Your task to perform on an android device: Show me the alarms in the clock app Image 0: 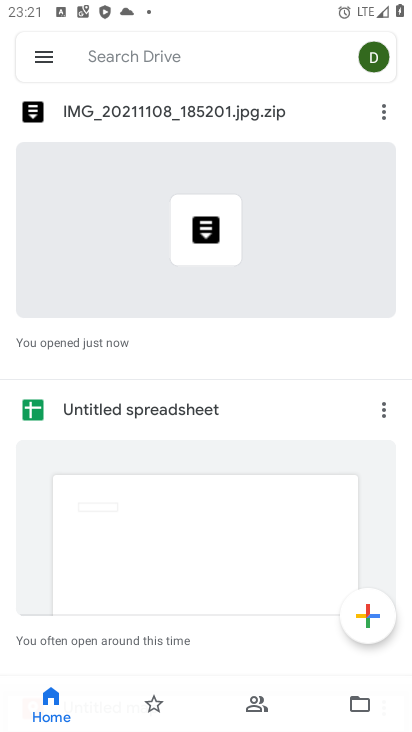
Step 0: press home button
Your task to perform on an android device: Show me the alarms in the clock app Image 1: 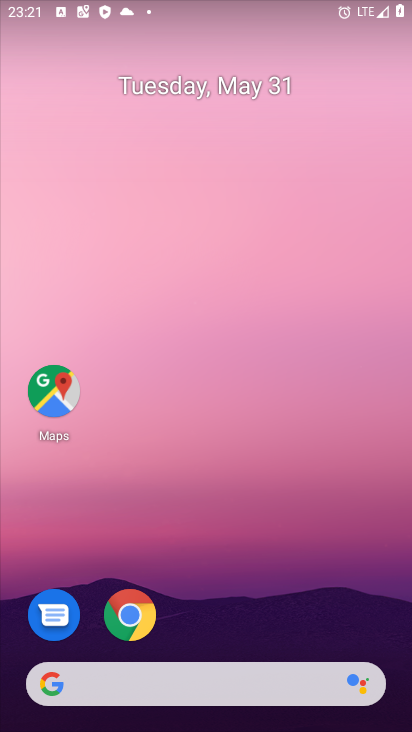
Step 1: drag from (373, 629) to (329, 4)
Your task to perform on an android device: Show me the alarms in the clock app Image 2: 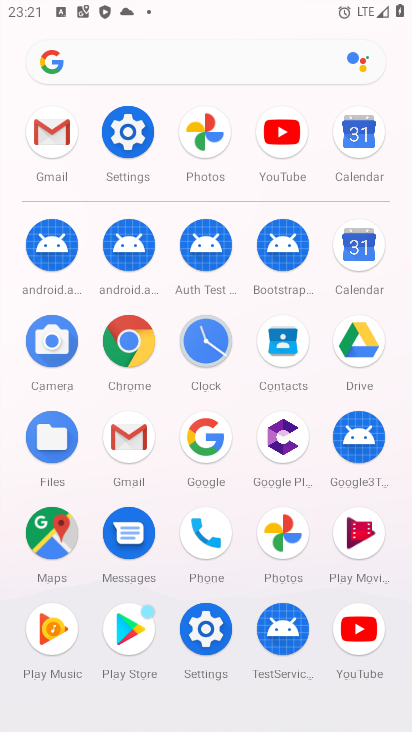
Step 2: click (206, 340)
Your task to perform on an android device: Show me the alarms in the clock app Image 3: 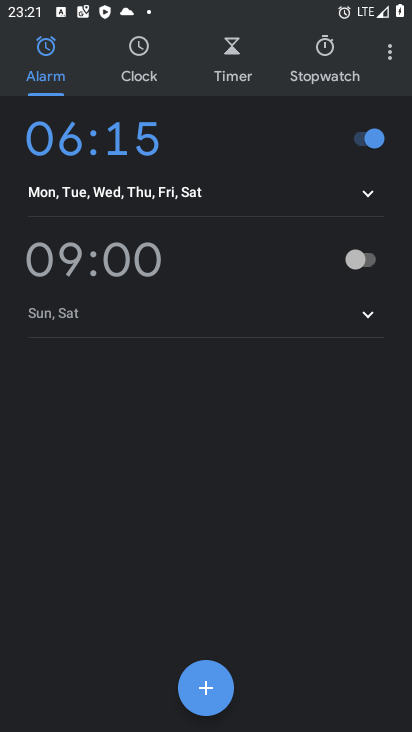
Step 3: task complete